Your task to perform on an android device: turn on sleep mode Image 0: 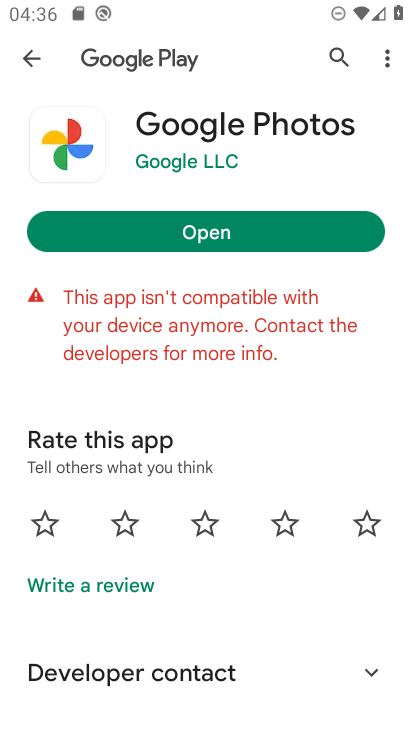
Step 0: press home button
Your task to perform on an android device: turn on sleep mode Image 1: 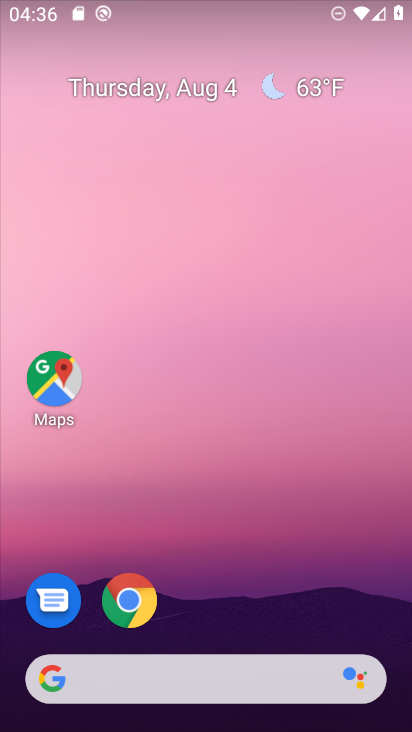
Step 1: drag from (311, 600) to (306, 194)
Your task to perform on an android device: turn on sleep mode Image 2: 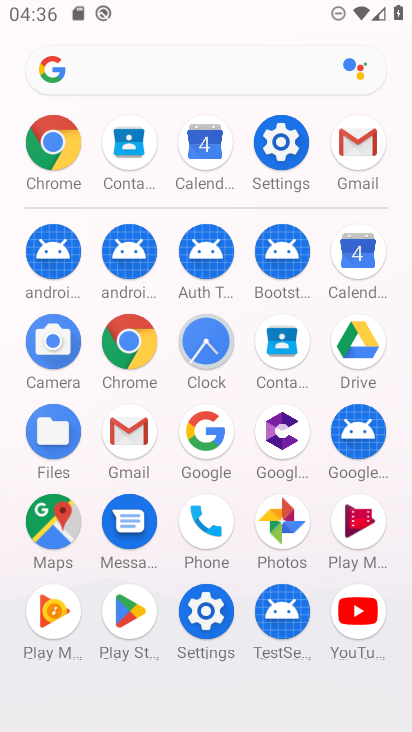
Step 2: click (271, 144)
Your task to perform on an android device: turn on sleep mode Image 3: 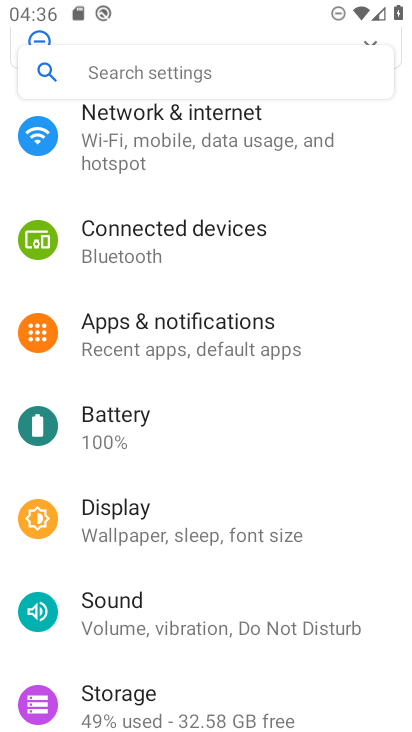
Step 3: click (145, 538)
Your task to perform on an android device: turn on sleep mode Image 4: 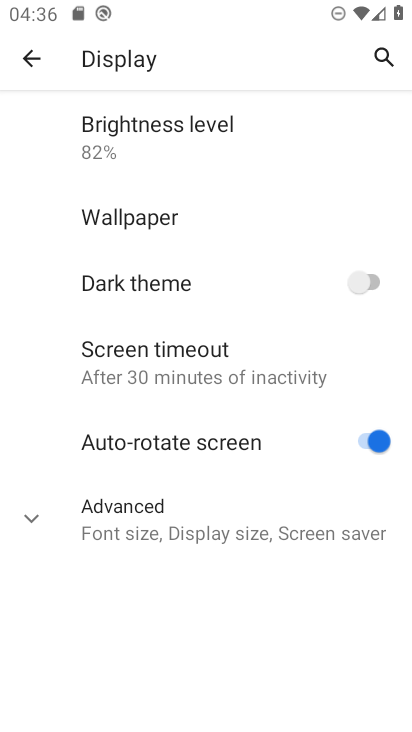
Step 4: click (176, 355)
Your task to perform on an android device: turn on sleep mode Image 5: 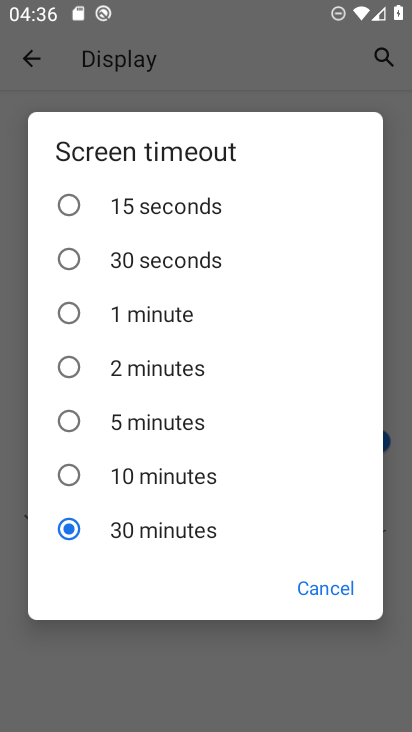
Step 5: task complete